Your task to perform on an android device: What's the weather? Image 0: 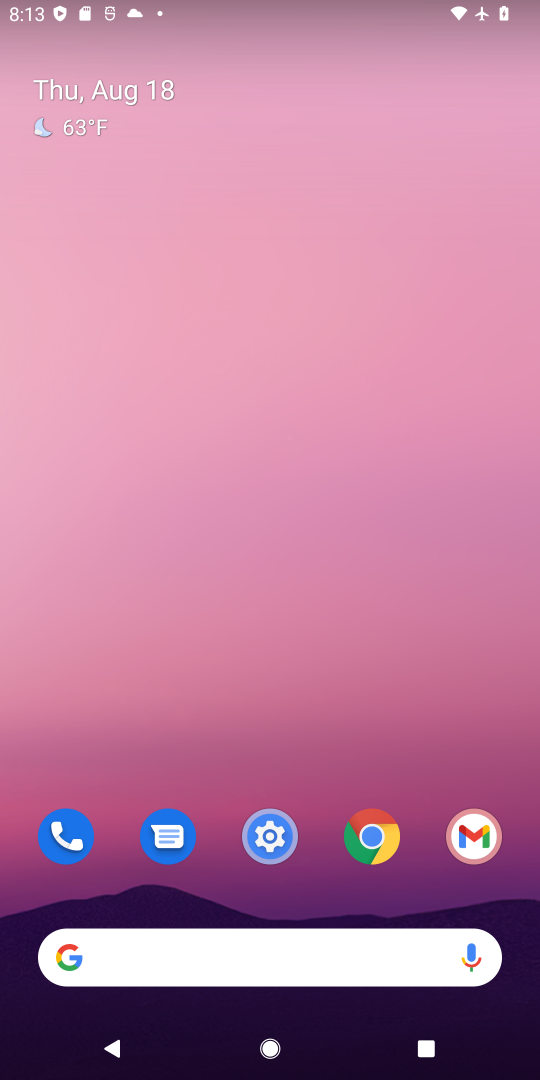
Step 0: drag from (375, 504) to (316, 673)
Your task to perform on an android device: What's the weather? Image 1: 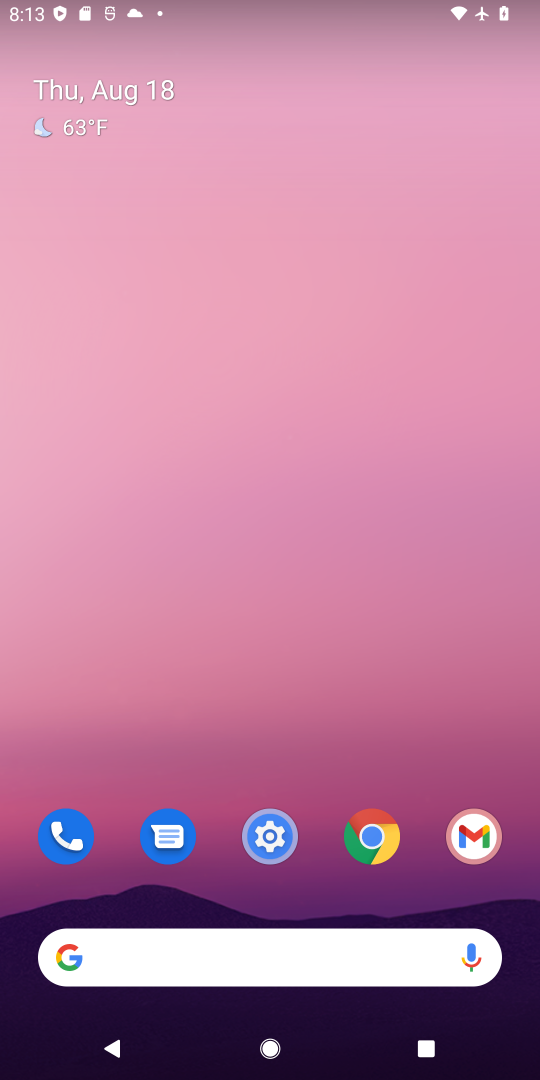
Step 1: click (83, 113)
Your task to perform on an android device: What's the weather? Image 2: 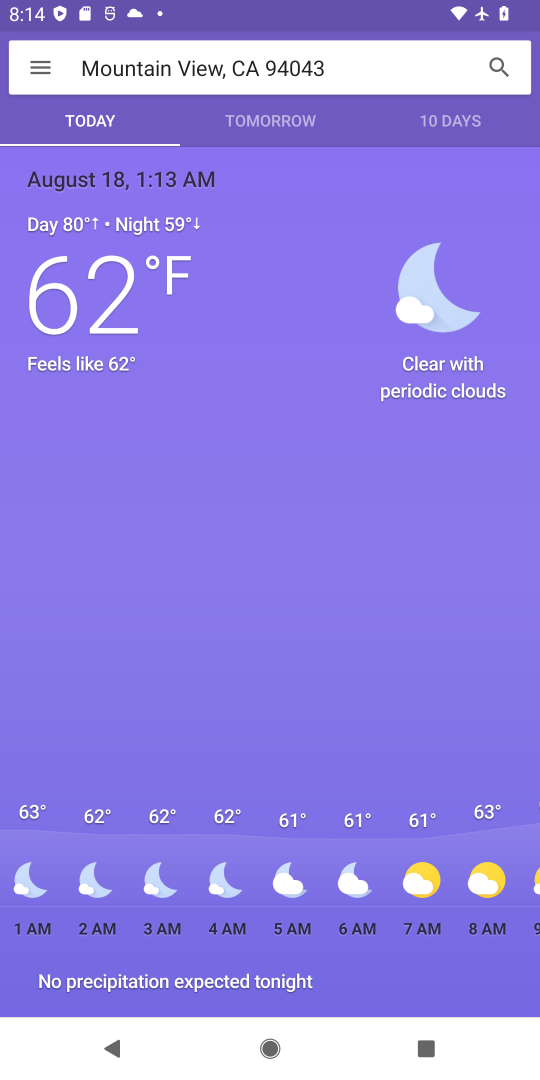
Step 2: task complete